Your task to perform on an android device: turn on airplane mode Image 0: 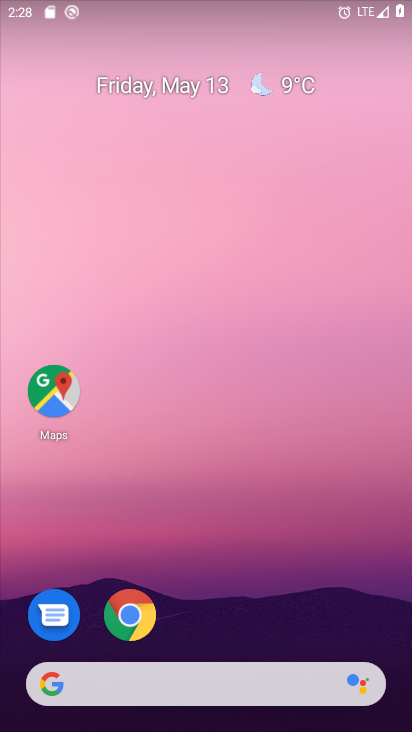
Step 0: drag from (287, 609) to (310, 51)
Your task to perform on an android device: turn on airplane mode Image 1: 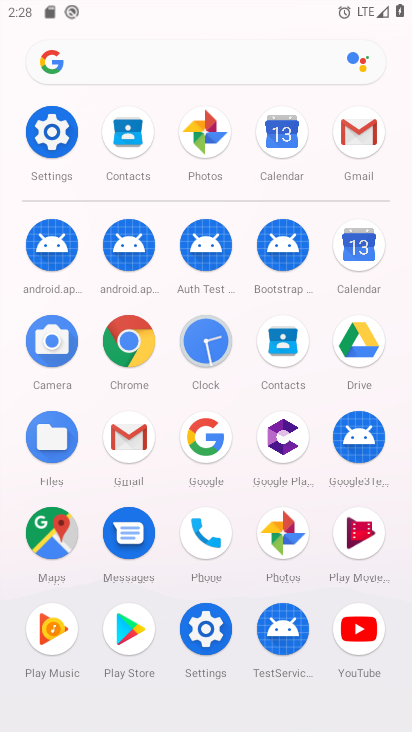
Step 1: click (66, 140)
Your task to perform on an android device: turn on airplane mode Image 2: 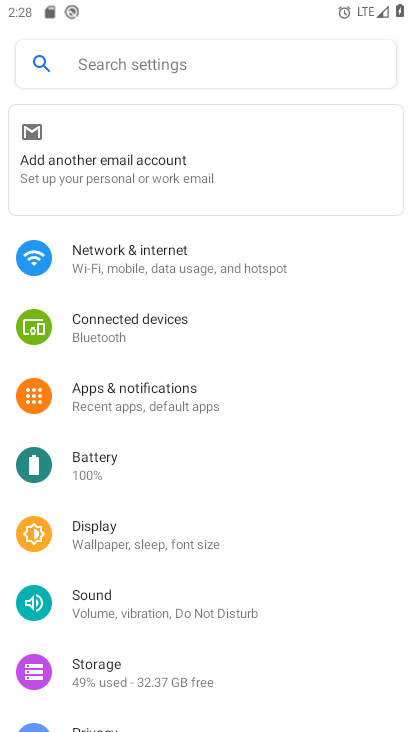
Step 2: click (154, 248)
Your task to perform on an android device: turn on airplane mode Image 3: 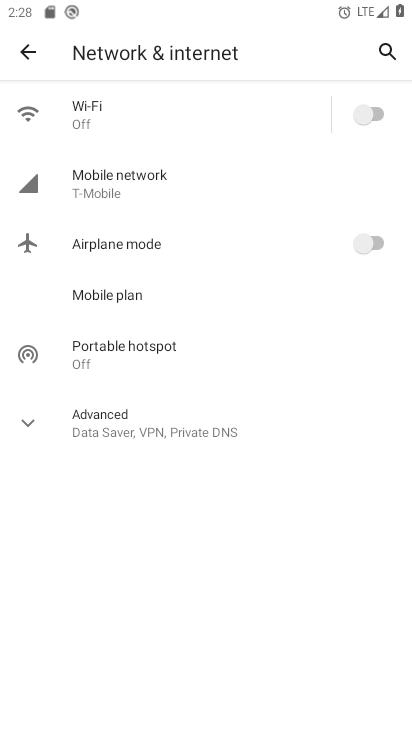
Step 3: click (362, 240)
Your task to perform on an android device: turn on airplane mode Image 4: 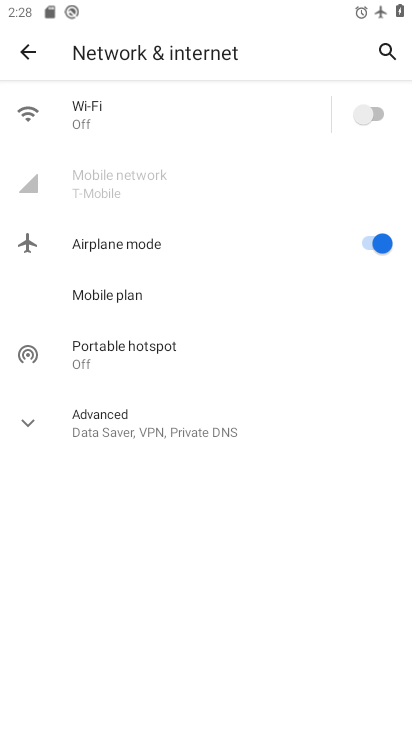
Step 4: task complete